Your task to perform on an android device: turn off translation in the chrome app Image 0: 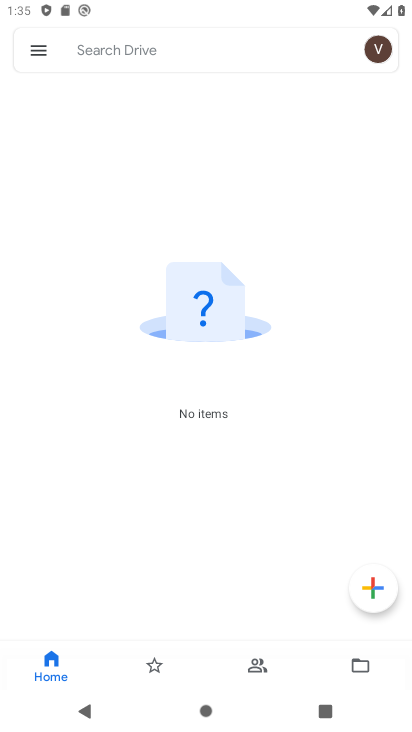
Step 0: press home button
Your task to perform on an android device: turn off translation in the chrome app Image 1: 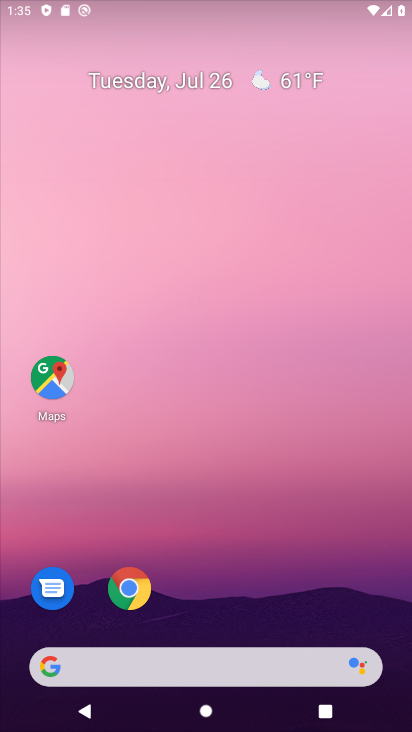
Step 1: drag from (197, 596) to (298, 42)
Your task to perform on an android device: turn off translation in the chrome app Image 2: 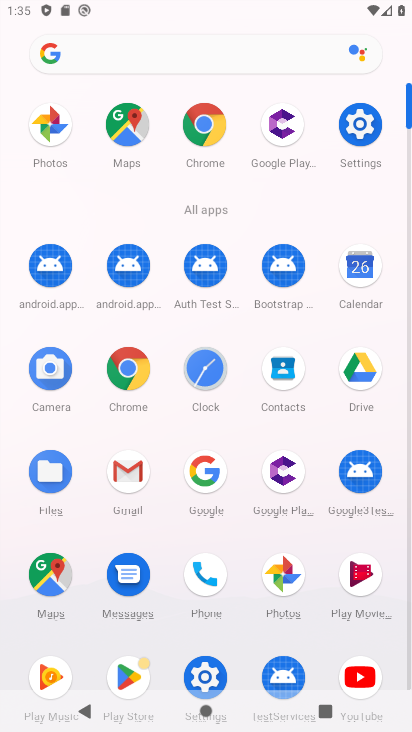
Step 2: click (199, 126)
Your task to perform on an android device: turn off translation in the chrome app Image 3: 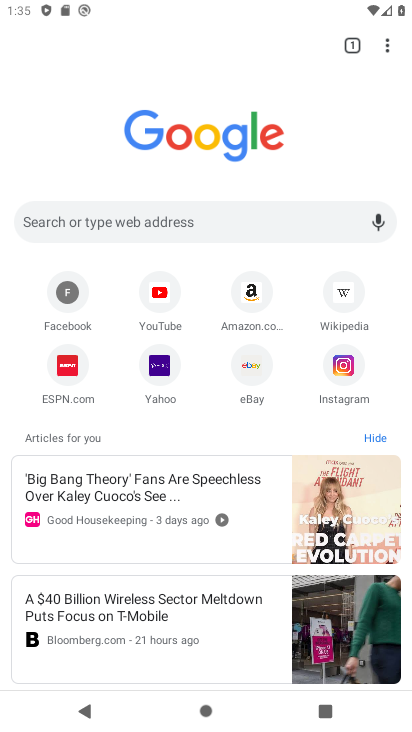
Step 3: drag from (396, 53) to (250, 376)
Your task to perform on an android device: turn off translation in the chrome app Image 4: 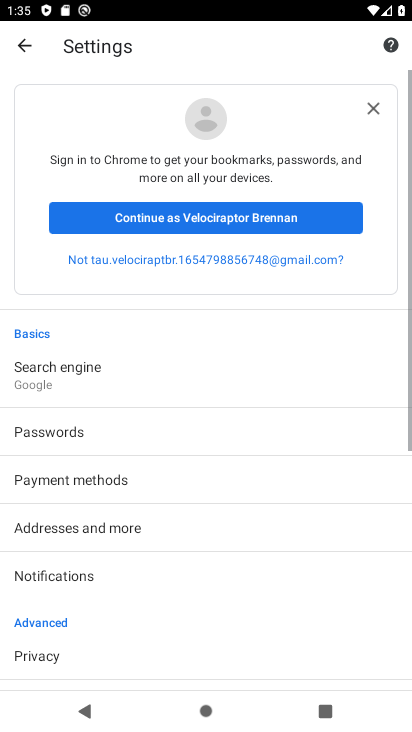
Step 4: drag from (135, 563) to (192, 216)
Your task to perform on an android device: turn off translation in the chrome app Image 5: 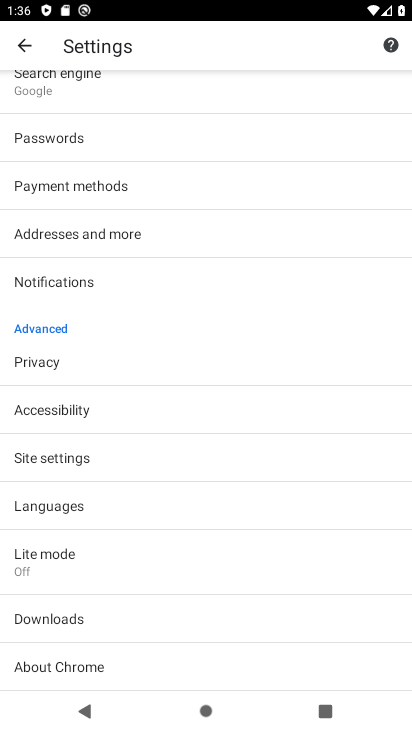
Step 5: click (66, 502)
Your task to perform on an android device: turn off translation in the chrome app Image 6: 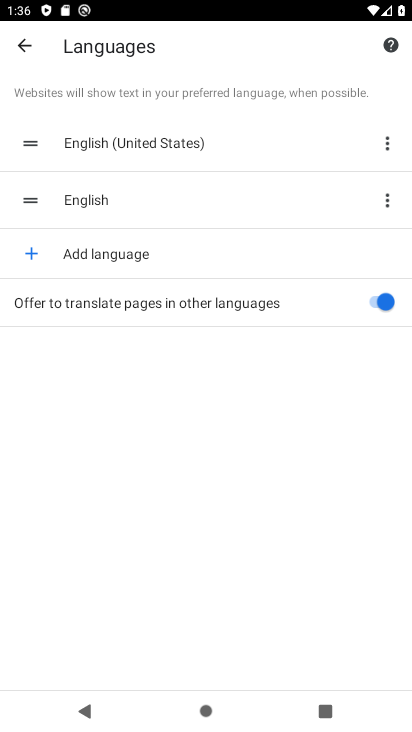
Step 6: click (378, 300)
Your task to perform on an android device: turn off translation in the chrome app Image 7: 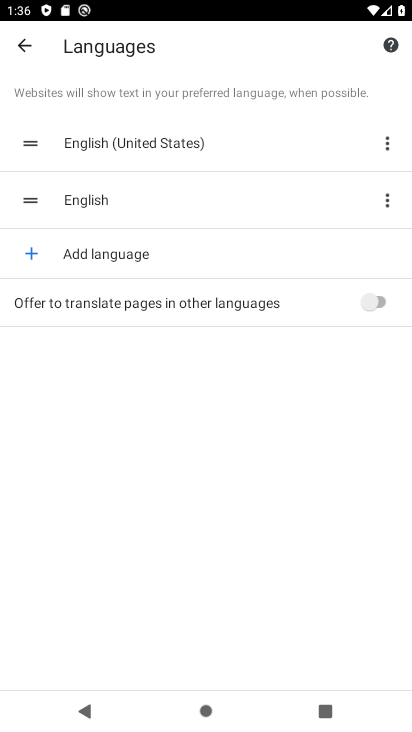
Step 7: task complete